Your task to perform on an android device: Turn on the flashlight Image 0: 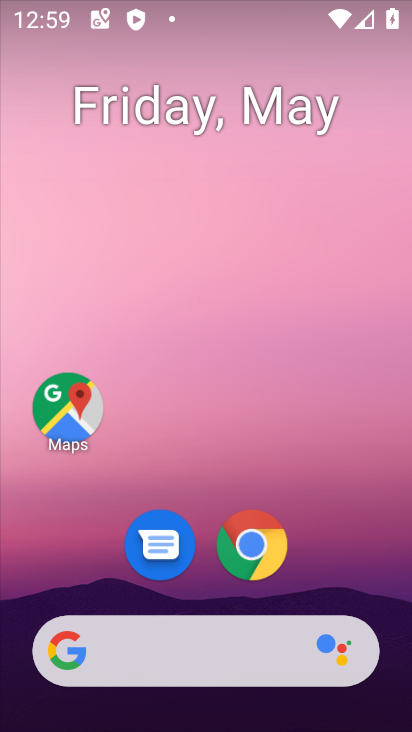
Step 0: drag from (314, 558) to (266, 78)
Your task to perform on an android device: Turn on the flashlight Image 1: 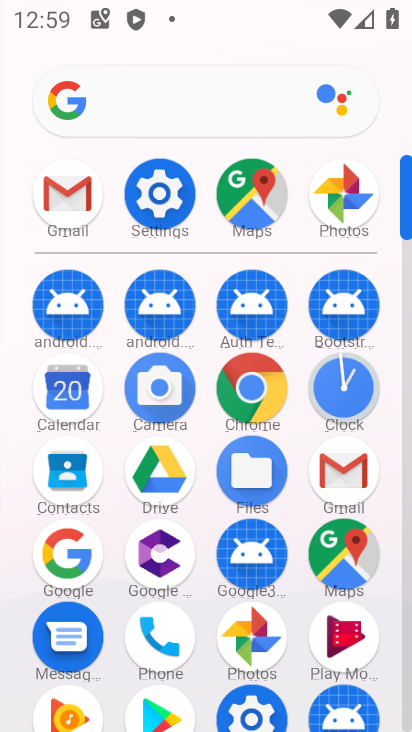
Step 1: click (149, 208)
Your task to perform on an android device: Turn on the flashlight Image 2: 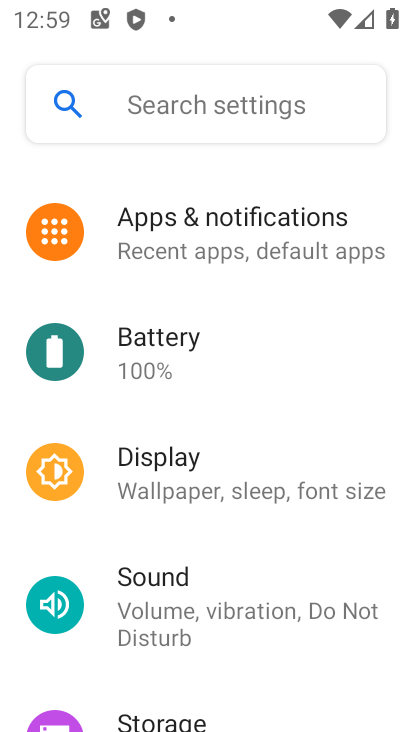
Step 2: click (283, 229)
Your task to perform on an android device: Turn on the flashlight Image 3: 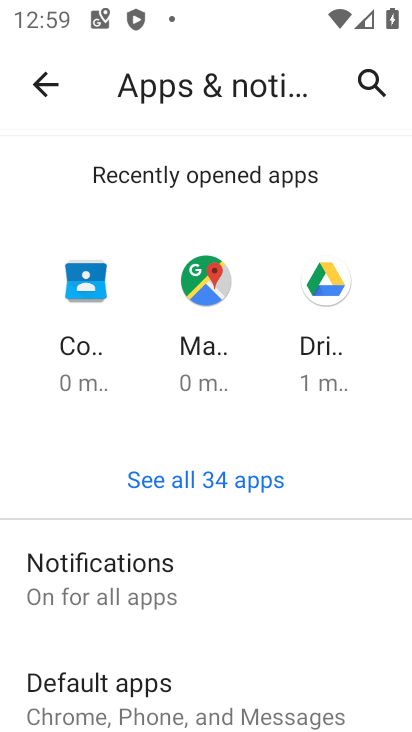
Step 3: drag from (251, 617) to (277, 209)
Your task to perform on an android device: Turn on the flashlight Image 4: 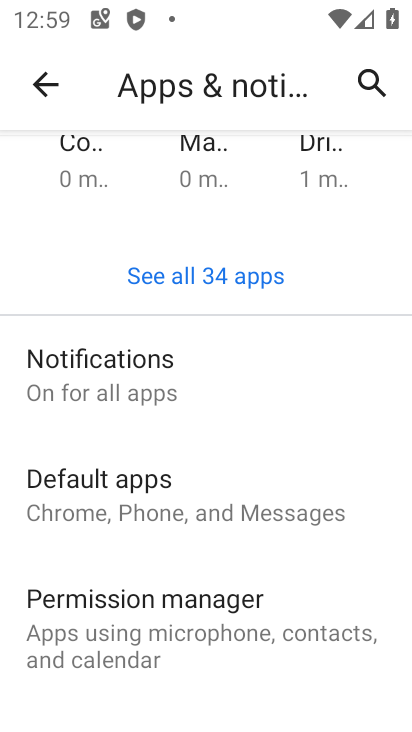
Step 4: drag from (256, 668) to (261, 242)
Your task to perform on an android device: Turn on the flashlight Image 5: 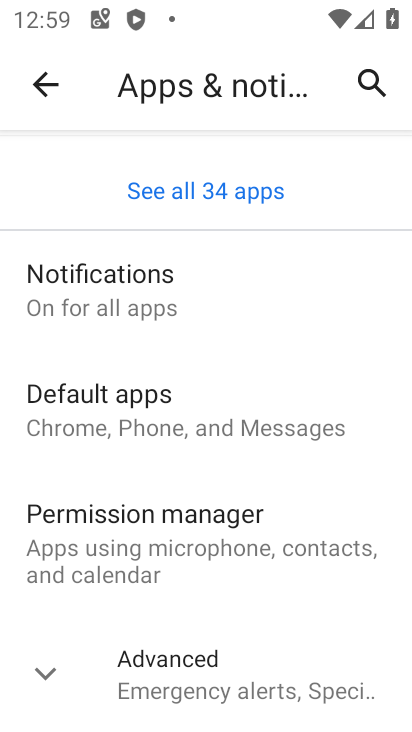
Step 5: click (224, 669)
Your task to perform on an android device: Turn on the flashlight Image 6: 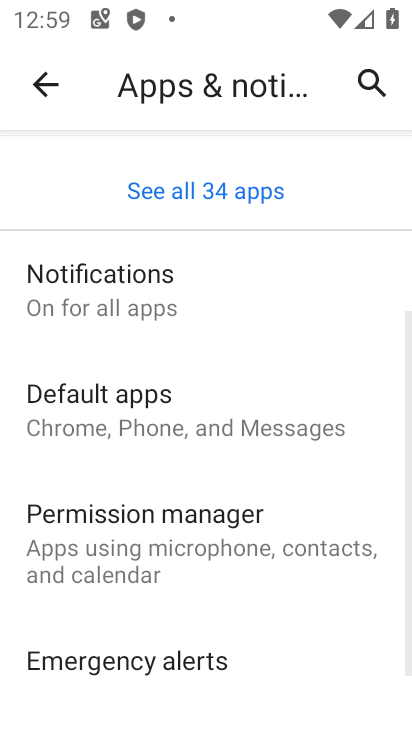
Step 6: drag from (302, 606) to (264, 152)
Your task to perform on an android device: Turn on the flashlight Image 7: 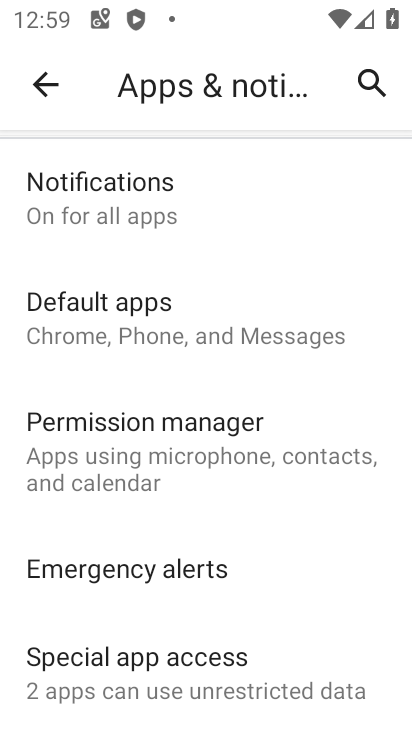
Step 7: click (215, 685)
Your task to perform on an android device: Turn on the flashlight Image 8: 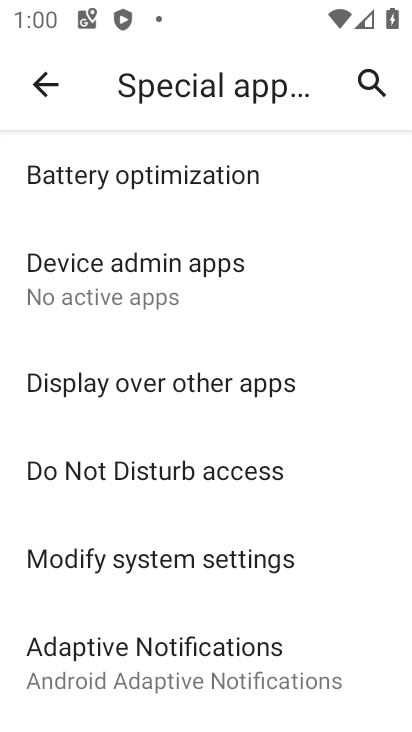
Step 8: task complete